Your task to perform on an android device: toggle notifications settings in the gmail app Image 0: 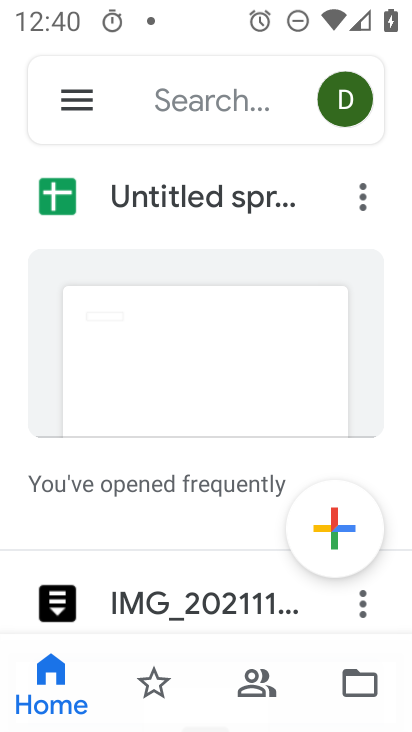
Step 0: press home button
Your task to perform on an android device: toggle notifications settings in the gmail app Image 1: 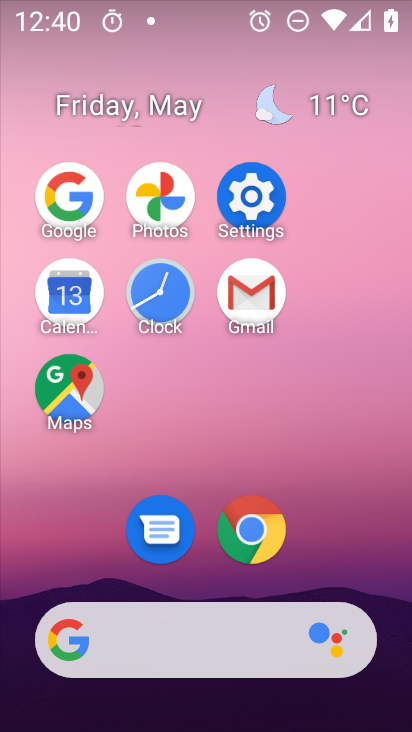
Step 1: click (262, 305)
Your task to perform on an android device: toggle notifications settings in the gmail app Image 2: 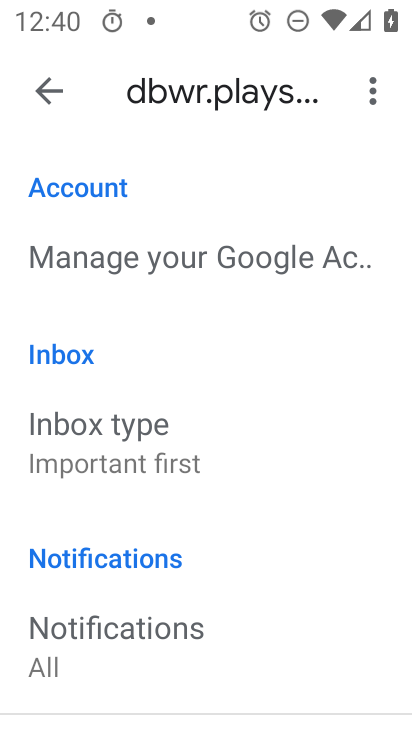
Step 2: click (166, 661)
Your task to perform on an android device: toggle notifications settings in the gmail app Image 3: 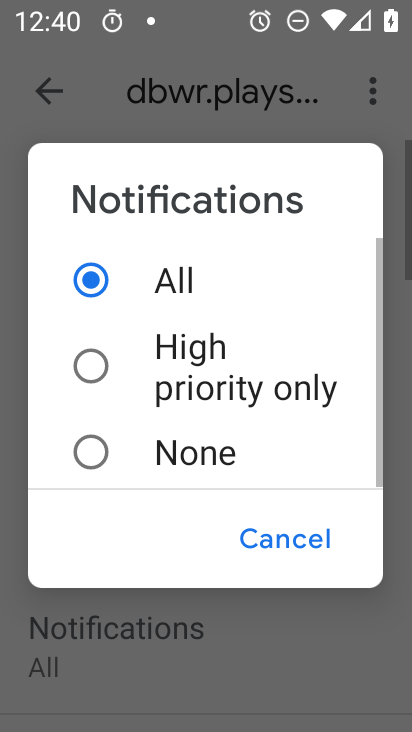
Step 3: click (236, 344)
Your task to perform on an android device: toggle notifications settings in the gmail app Image 4: 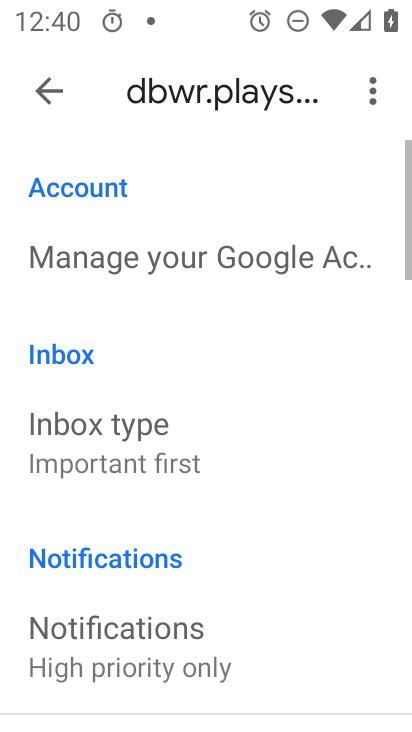
Step 4: task complete